Your task to perform on an android device: turn on javascript in the chrome app Image 0: 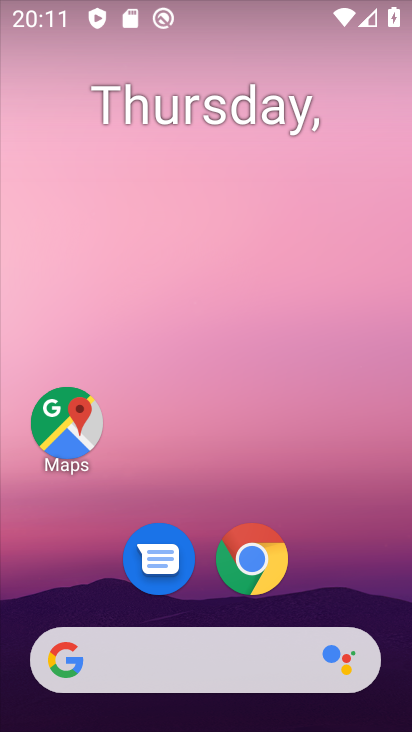
Step 0: click (233, 544)
Your task to perform on an android device: turn on javascript in the chrome app Image 1: 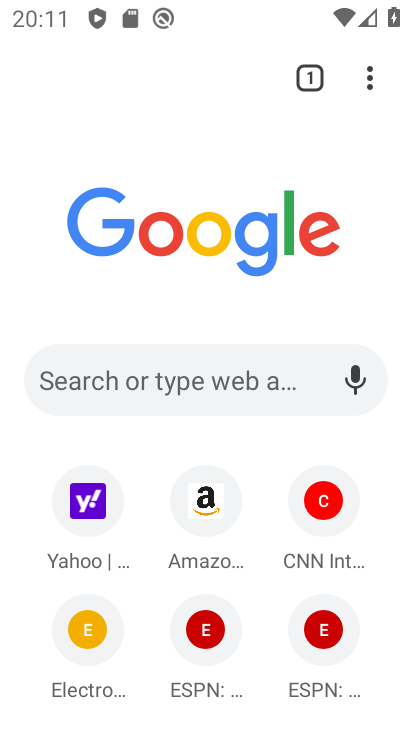
Step 1: drag from (368, 89) to (145, 617)
Your task to perform on an android device: turn on javascript in the chrome app Image 2: 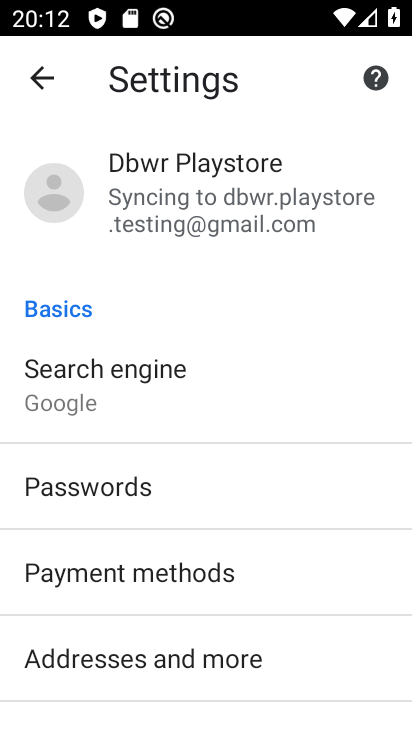
Step 2: drag from (151, 615) to (107, 160)
Your task to perform on an android device: turn on javascript in the chrome app Image 3: 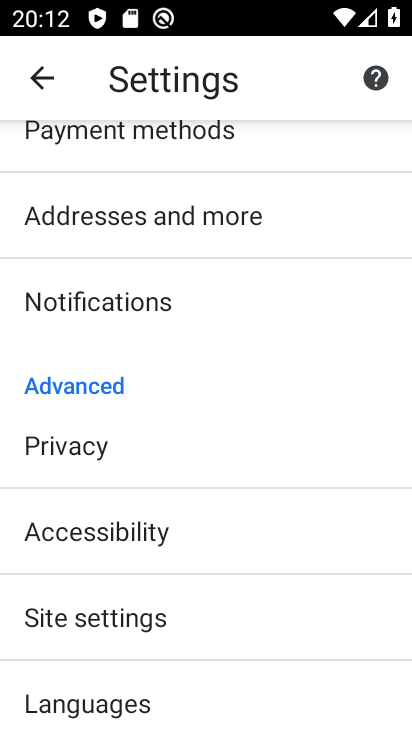
Step 3: click (157, 632)
Your task to perform on an android device: turn on javascript in the chrome app Image 4: 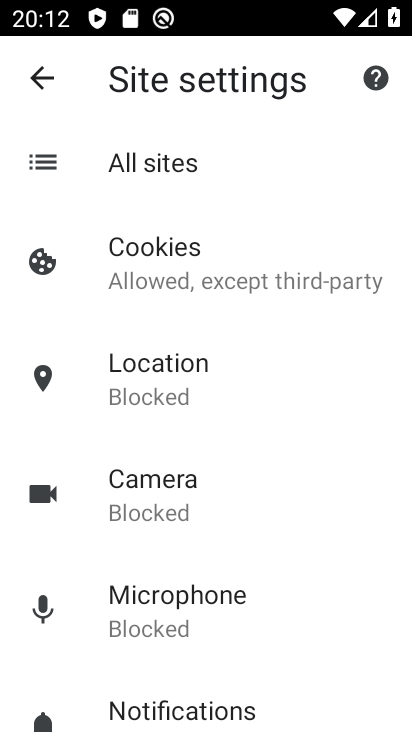
Step 4: drag from (180, 609) to (171, 231)
Your task to perform on an android device: turn on javascript in the chrome app Image 5: 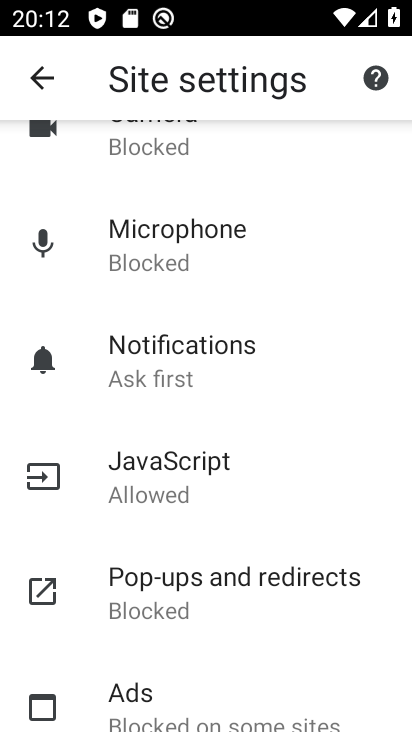
Step 5: click (157, 512)
Your task to perform on an android device: turn on javascript in the chrome app Image 6: 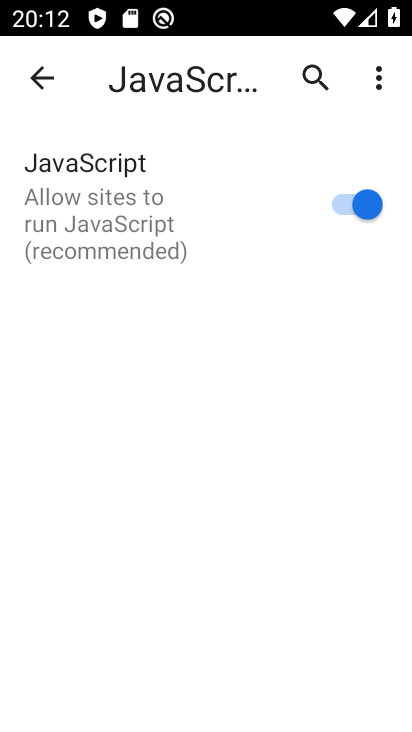
Step 6: task complete